Your task to perform on an android device: turn off notifications settings in the gmail app Image 0: 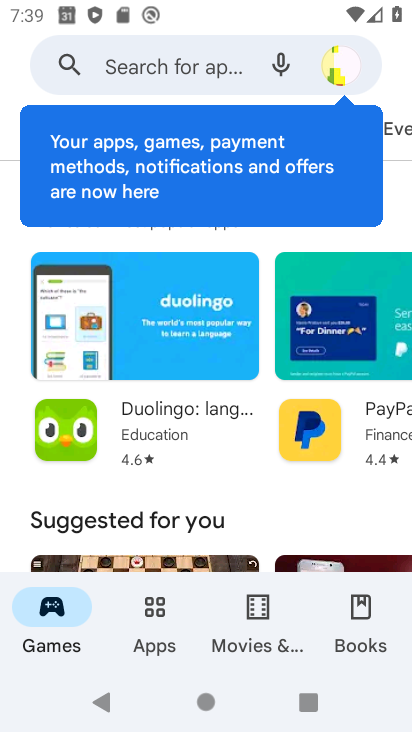
Step 0: press home button
Your task to perform on an android device: turn off notifications settings in the gmail app Image 1: 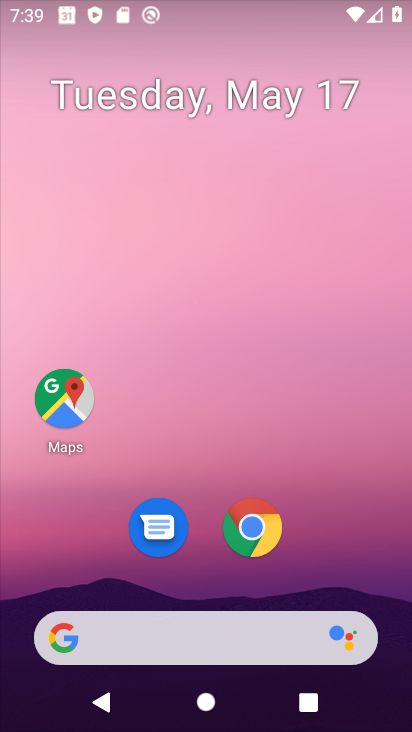
Step 1: drag from (251, 672) to (265, 145)
Your task to perform on an android device: turn off notifications settings in the gmail app Image 2: 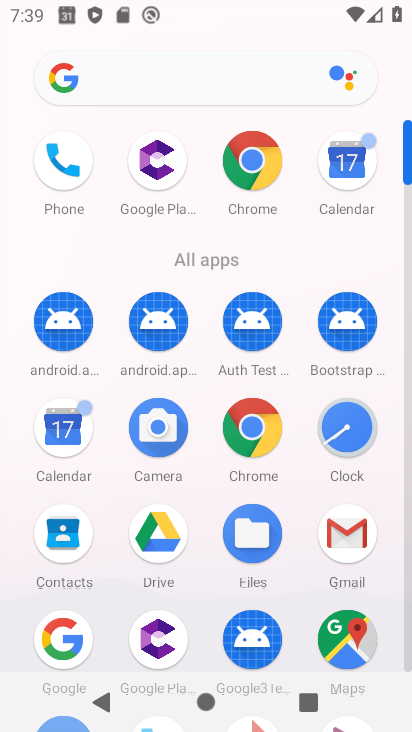
Step 2: click (339, 541)
Your task to perform on an android device: turn off notifications settings in the gmail app Image 3: 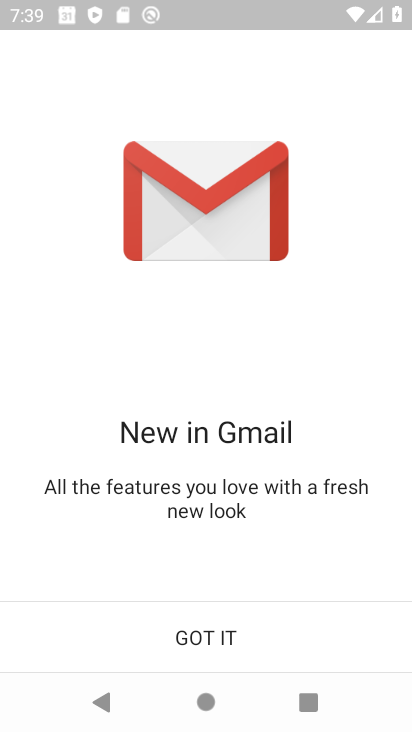
Step 3: click (226, 641)
Your task to perform on an android device: turn off notifications settings in the gmail app Image 4: 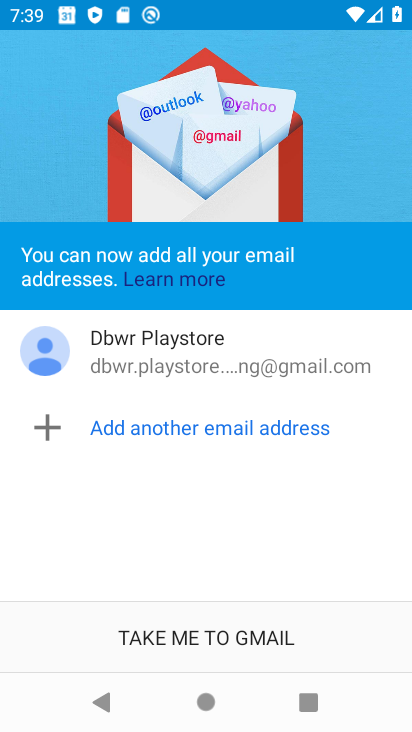
Step 4: click (213, 637)
Your task to perform on an android device: turn off notifications settings in the gmail app Image 5: 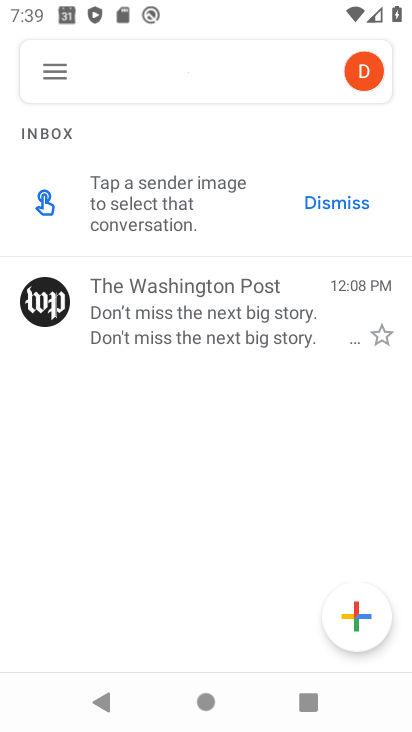
Step 5: click (338, 203)
Your task to perform on an android device: turn off notifications settings in the gmail app Image 6: 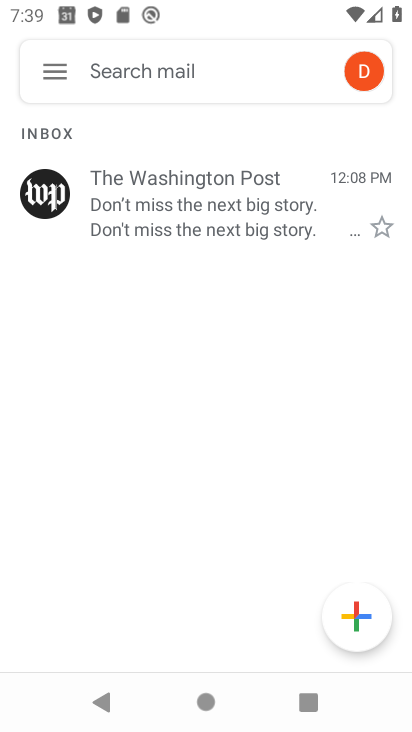
Step 6: click (64, 74)
Your task to perform on an android device: turn off notifications settings in the gmail app Image 7: 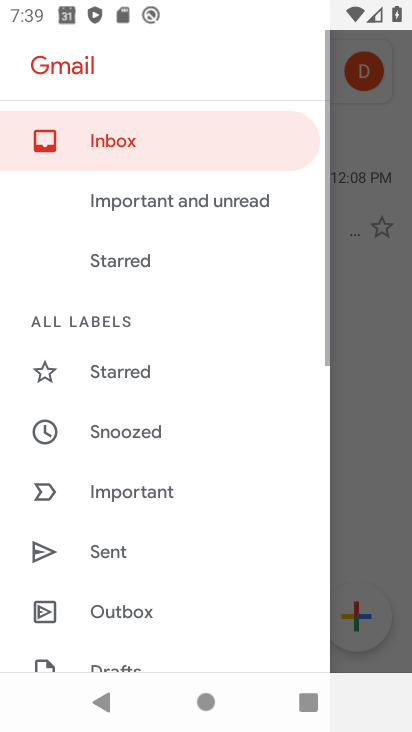
Step 7: drag from (146, 575) to (188, 305)
Your task to perform on an android device: turn off notifications settings in the gmail app Image 8: 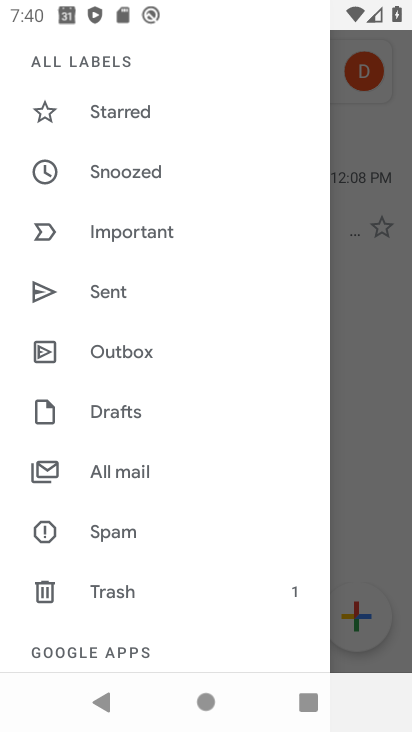
Step 8: drag from (134, 587) to (166, 435)
Your task to perform on an android device: turn off notifications settings in the gmail app Image 9: 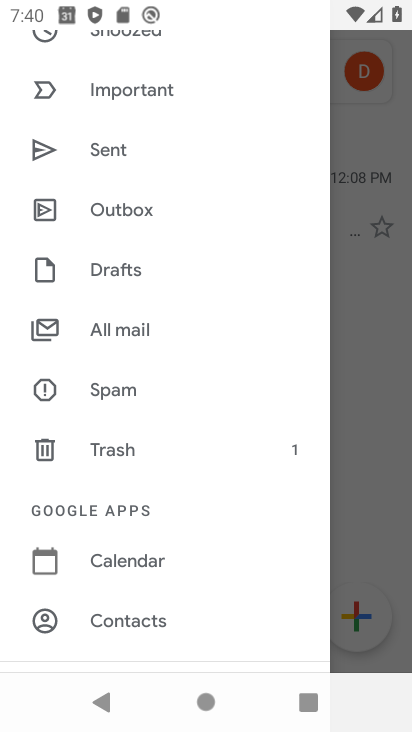
Step 9: drag from (136, 601) to (194, 421)
Your task to perform on an android device: turn off notifications settings in the gmail app Image 10: 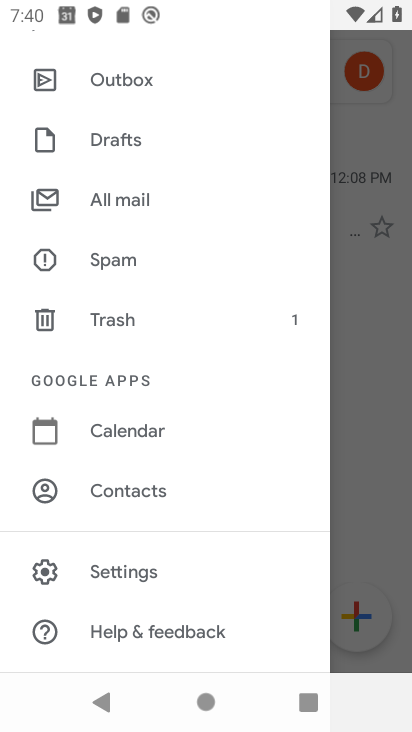
Step 10: click (139, 568)
Your task to perform on an android device: turn off notifications settings in the gmail app Image 11: 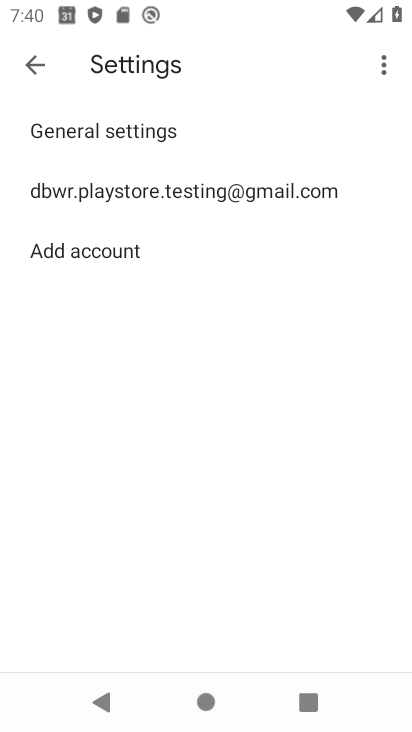
Step 11: click (134, 211)
Your task to perform on an android device: turn off notifications settings in the gmail app Image 12: 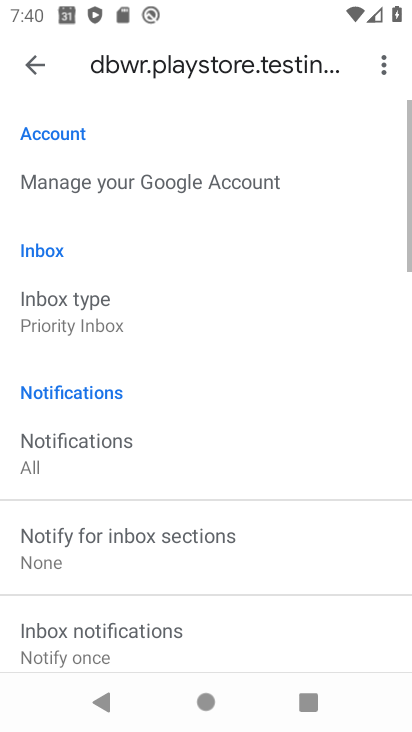
Step 12: click (164, 439)
Your task to perform on an android device: turn off notifications settings in the gmail app Image 13: 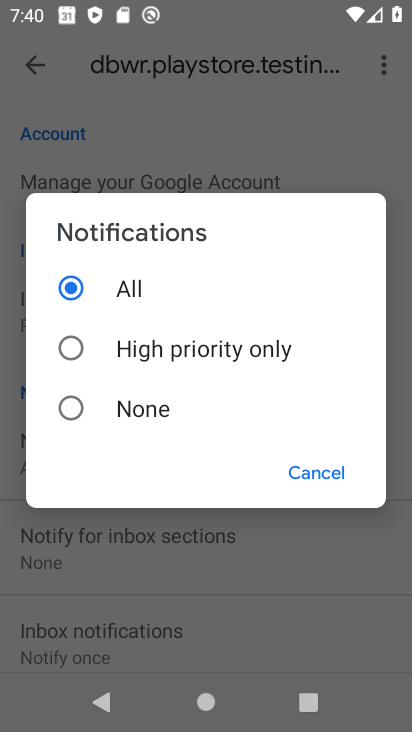
Step 13: click (177, 422)
Your task to perform on an android device: turn off notifications settings in the gmail app Image 14: 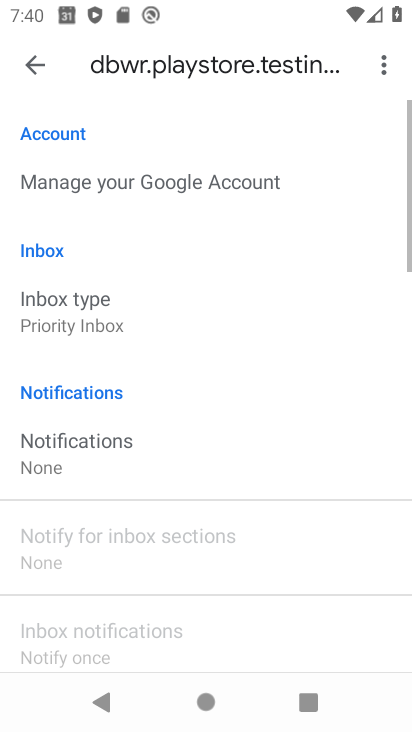
Step 14: task complete